Your task to perform on an android device: check data usage Image 0: 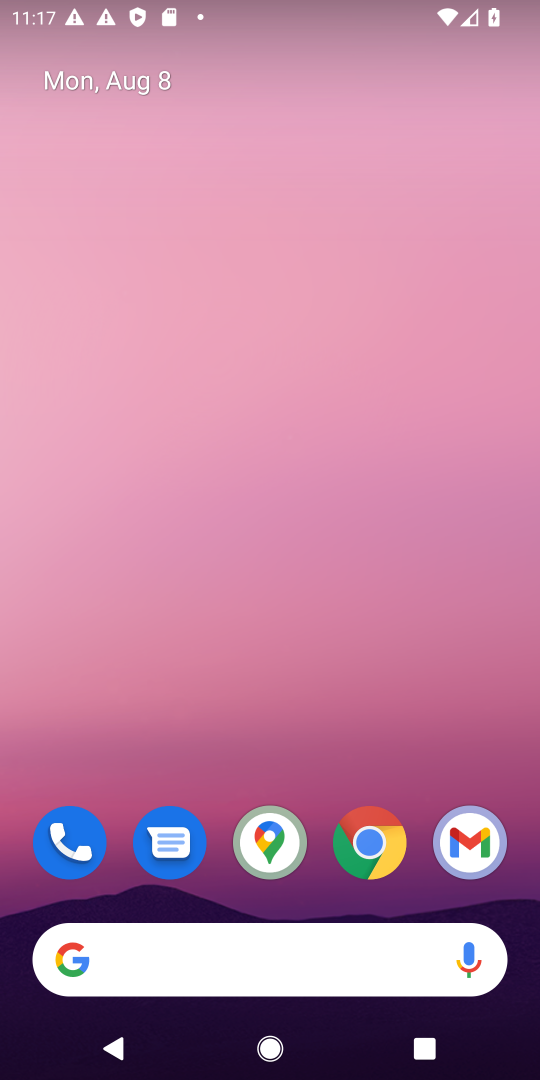
Step 0: drag from (284, 776) to (289, 377)
Your task to perform on an android device: check data usage Image 1: 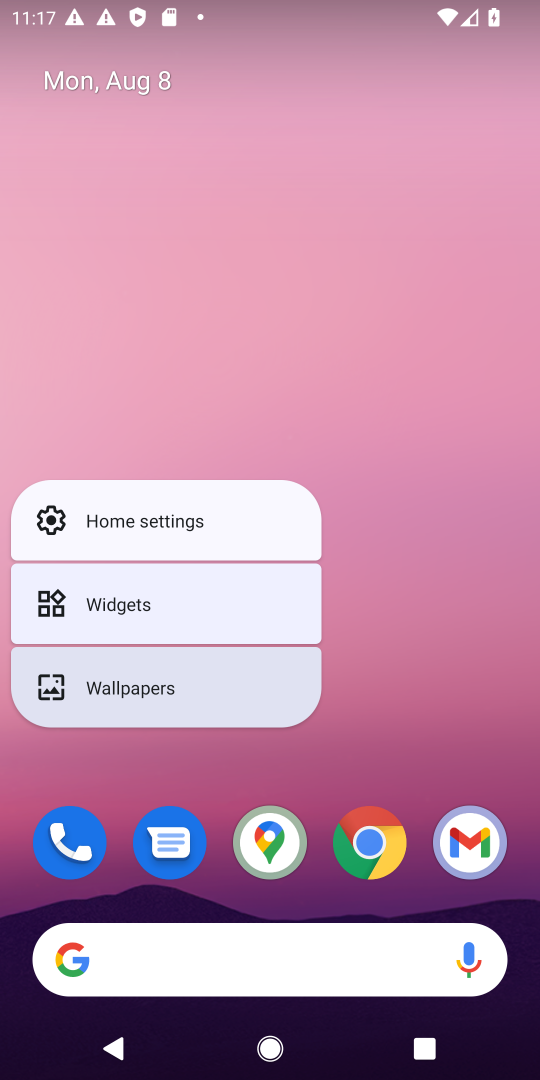
Step 1: click (415, 713)
Your task to perform on an android device: check data usage Image 2: 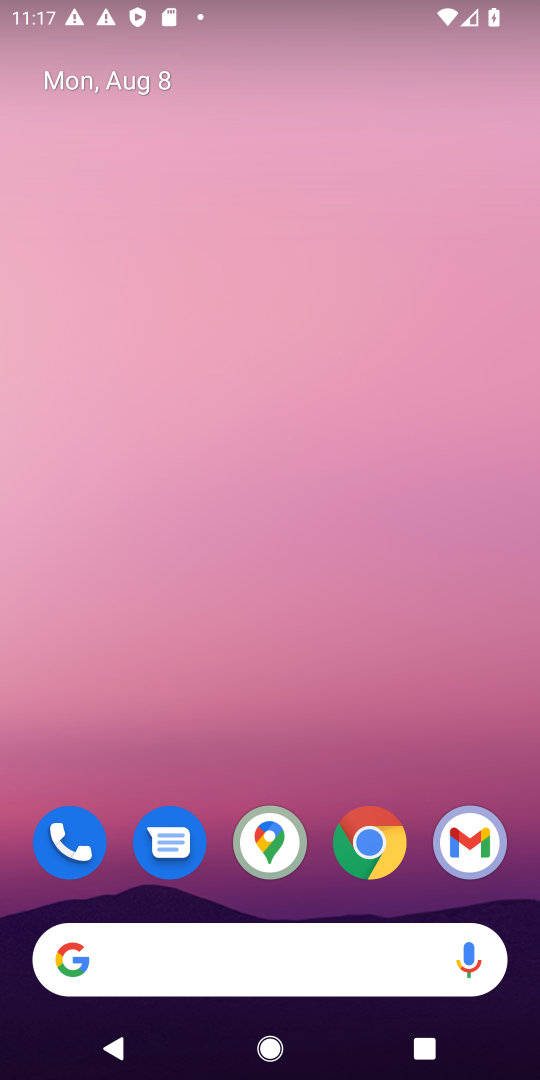
Step 2: drag from (420, 787) to (393, 158)
Your task to perform on an android device: check data usage Image 3: 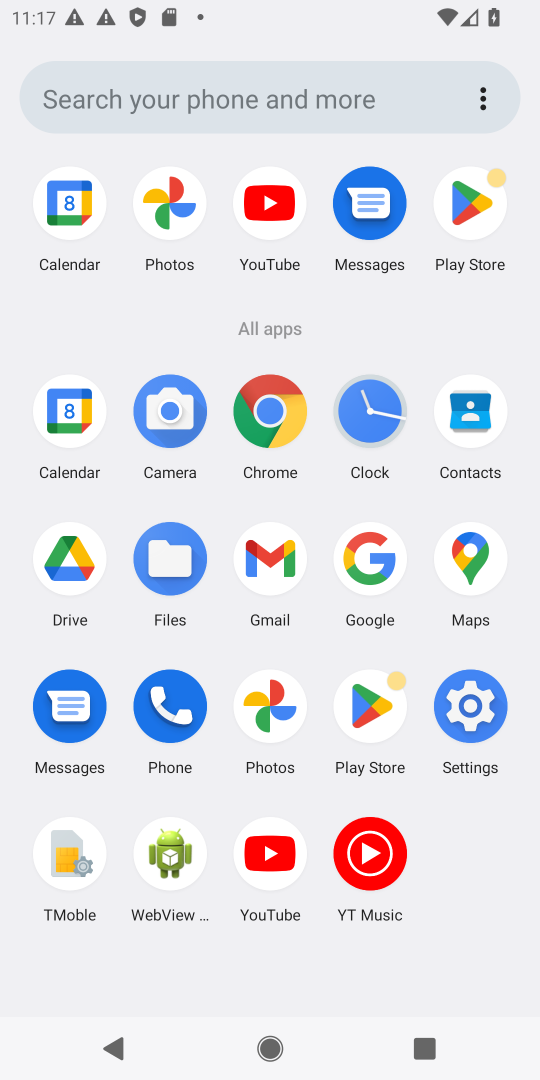
Step 3: click (486, 718)
Your task to perform on an android device: check data usage Image 4: 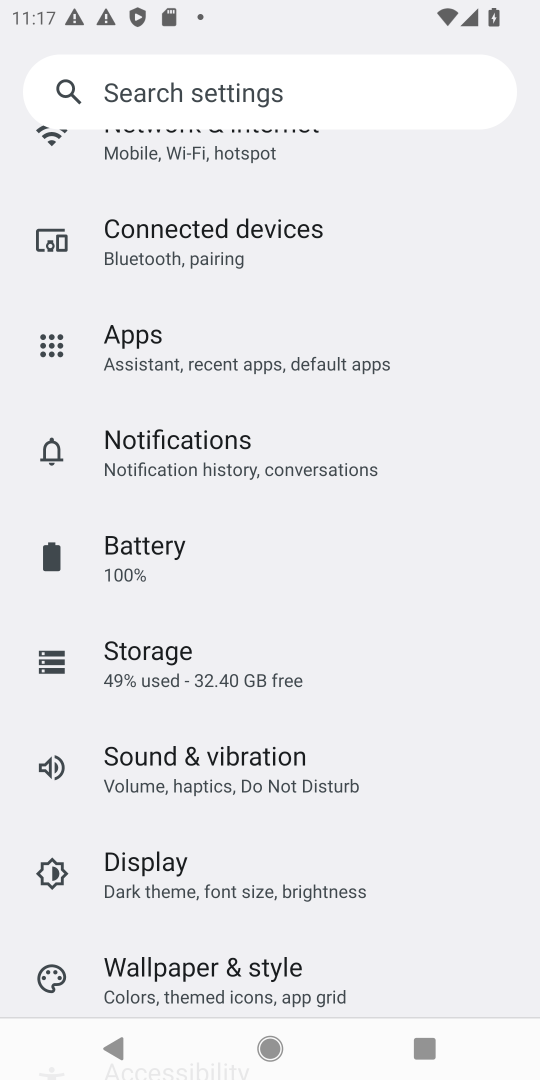
Step 4: click (195, 161)
Your task to perform on an android device: check data usage Image 5: 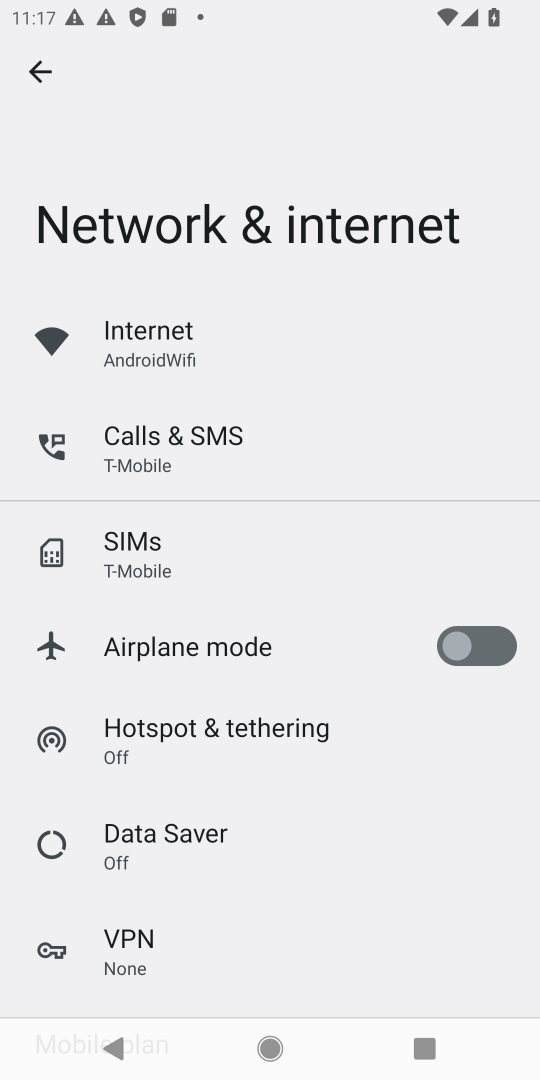
Step 5: click (140, 356)
Your task to perform on an android device: check data usage Image 6: 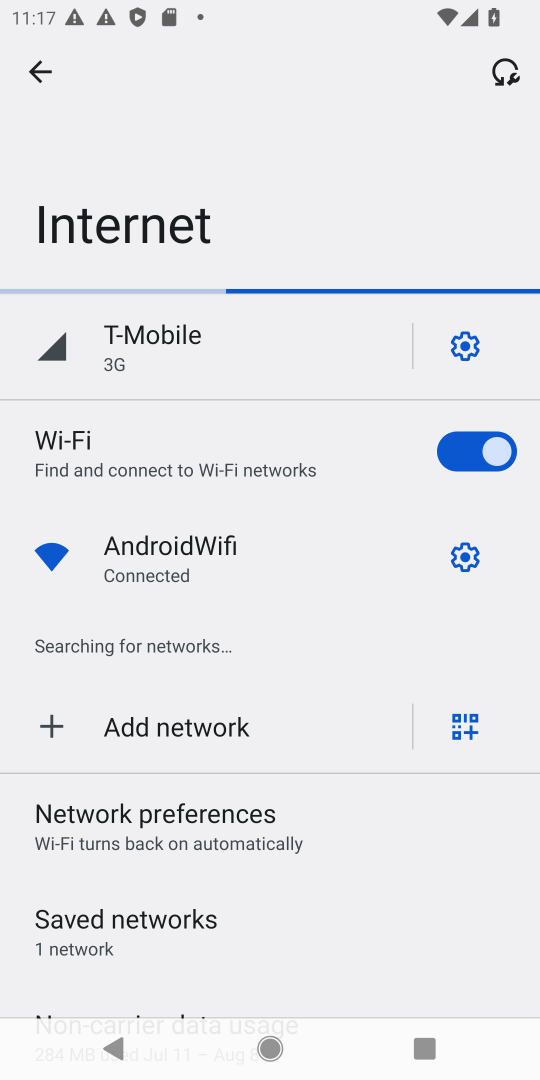
Step 6: click (165, 376)
Your task to perform on an android device: check data usage Image 7: 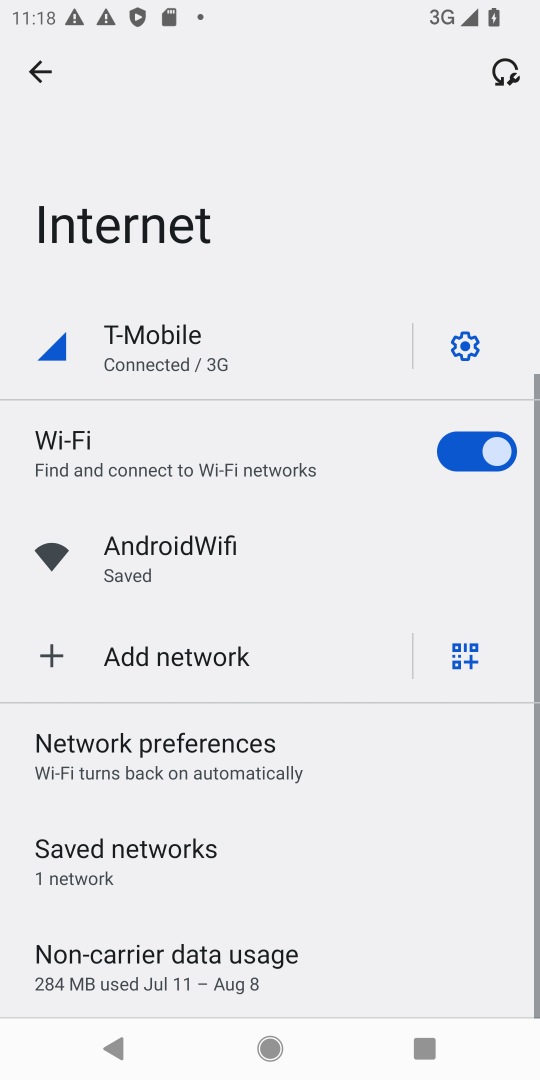
Step 7: click (176, 360)
Your task to perform on an android device: check data usage Image 8: 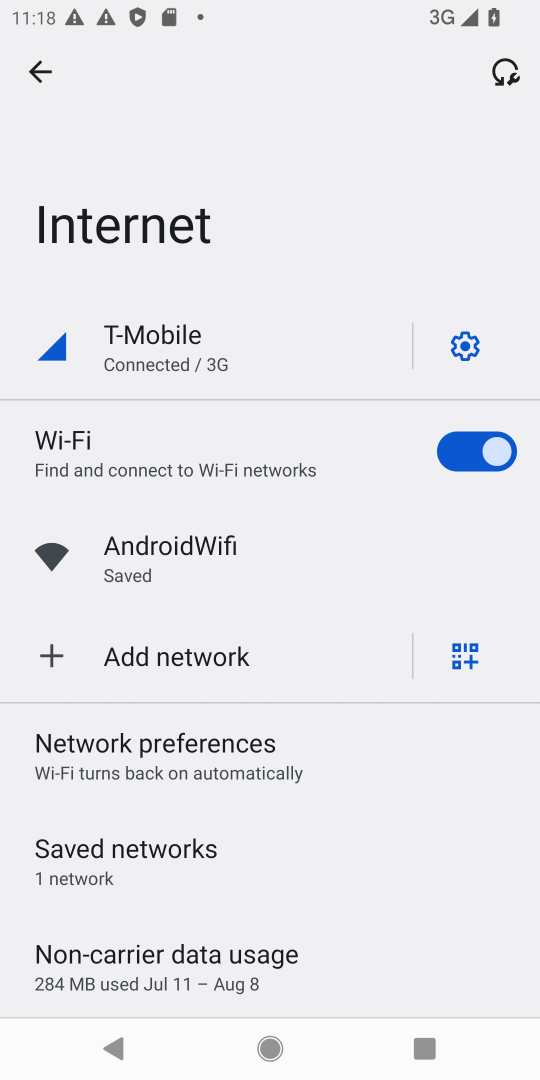
Step 8: click (458, 343)
Your task to perform on an android device: check data usage Image 9: 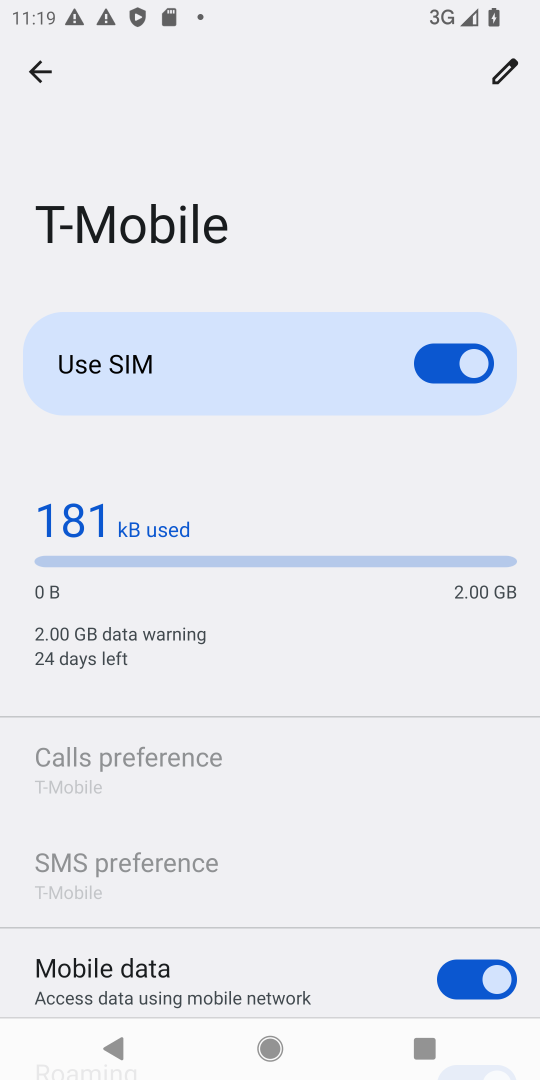
Step 9: task complete